Your task to perform on an android device: turn on airplane mode Image 0: 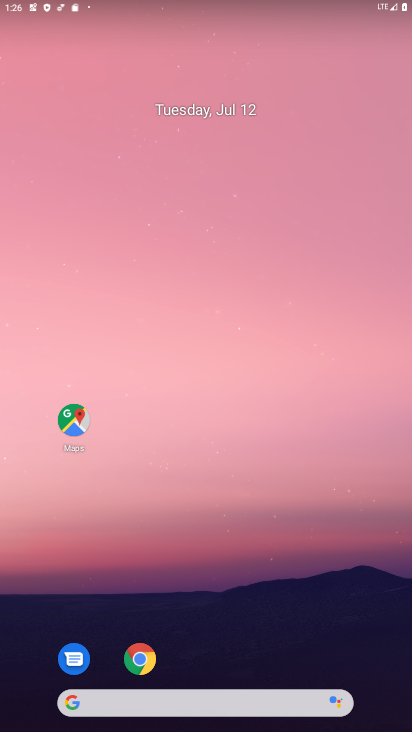
Step 0: drag from (226, 712) to (204, 374)
Your task to perform on an android device: turn on airplane mode Image 1: 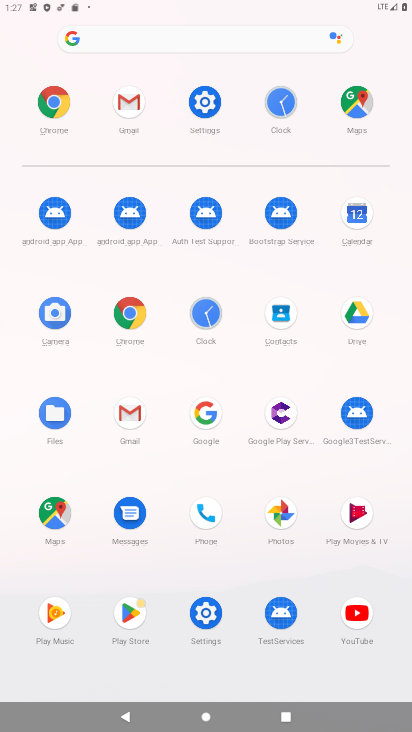
Step 1: click (209, 93)
Your task to perform on an android device: turn on airplane mode Image 2: 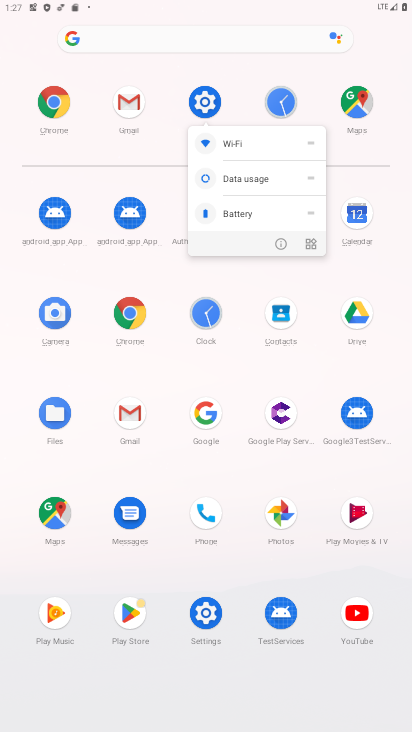
Step 2: click (204, 100)
Your task to perform on an android device: turn on airplane mode Image 3: 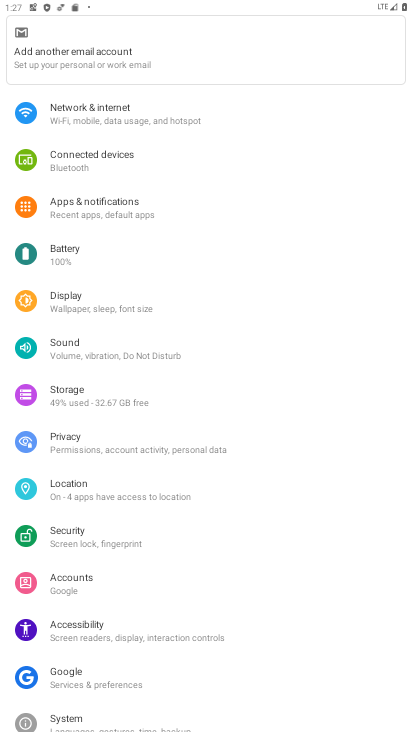
Step 3: click (84, 114)
Your task to perform on an android device: turn on airplane mode Image 4: 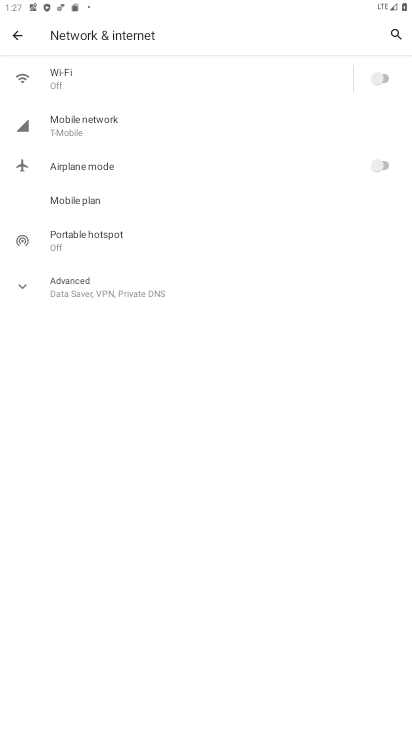
Step 4: click (374, 158)
Your task to perform on an android device: turn on airplane mode Image 5: 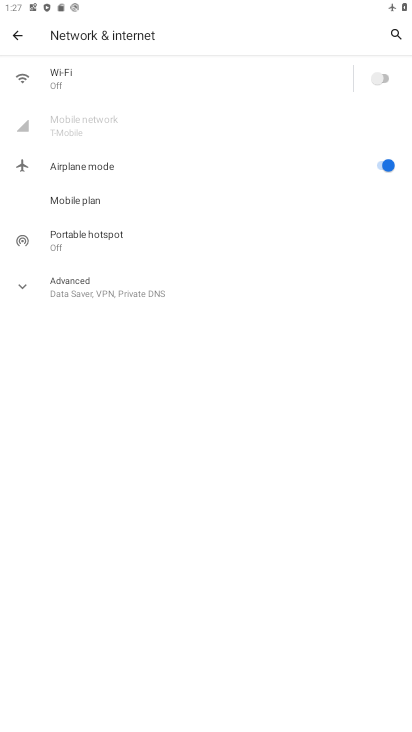
Step 5: task complete